Your task to perform on an android device: set the timer Image 0: 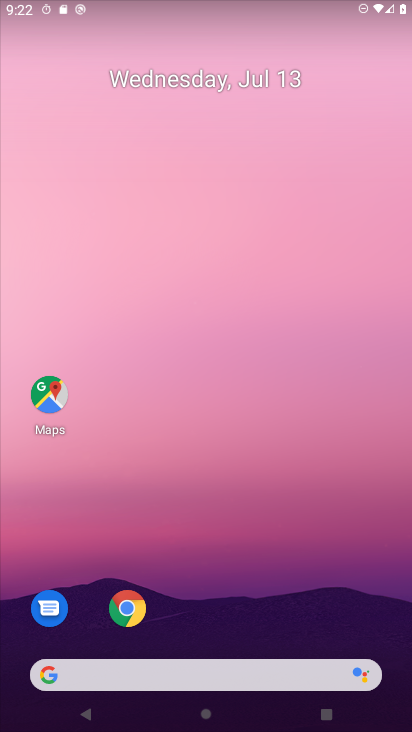
Step 0: drag from (216, 645) to (198, 222)
Your task to perform on an android device: set the timer Image 1: 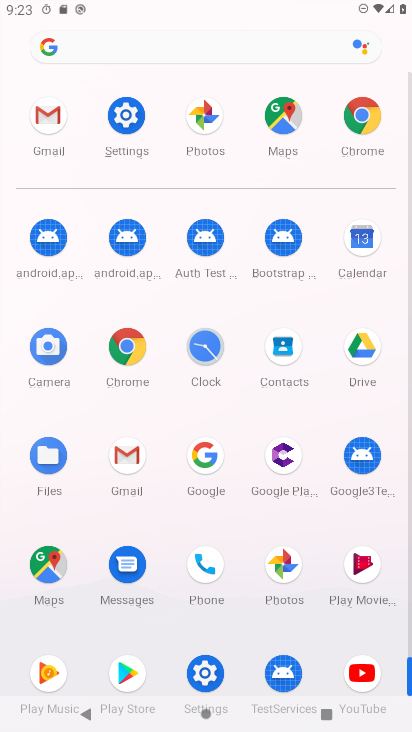
Step 1: click (115, 119)
Your task to perform on an android device: set the timer Image 2: 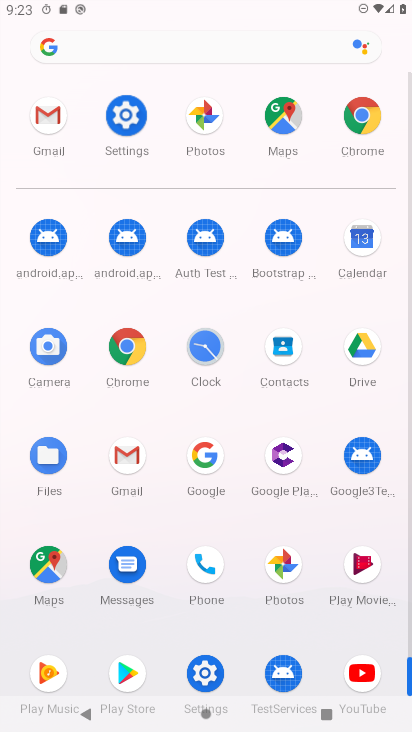
Step 2: click (119, 119)
Your task to perform on an android device: set the timer Image 3: 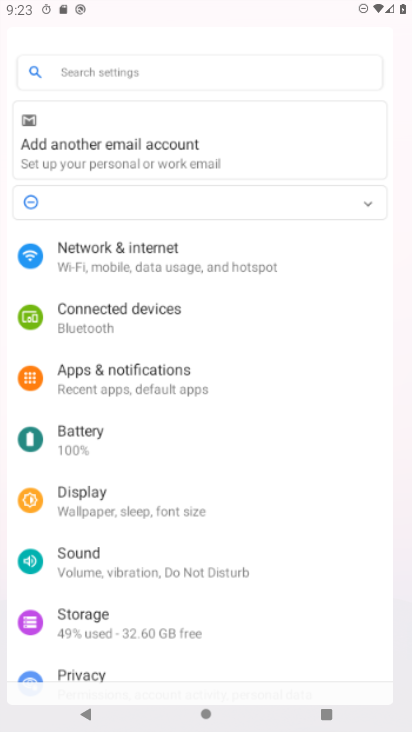
Step 3: click (119, 119)
Your task to perform on an android device: set the timer Image 4: 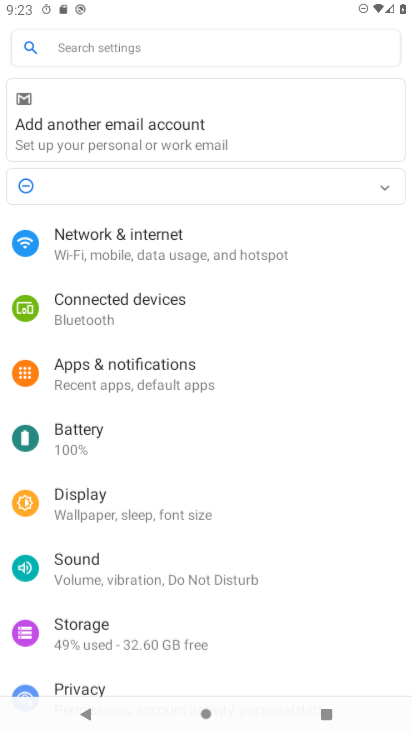
Step 4: click (121, 119)
Your task to perform on an android device: set the timer Image 5: 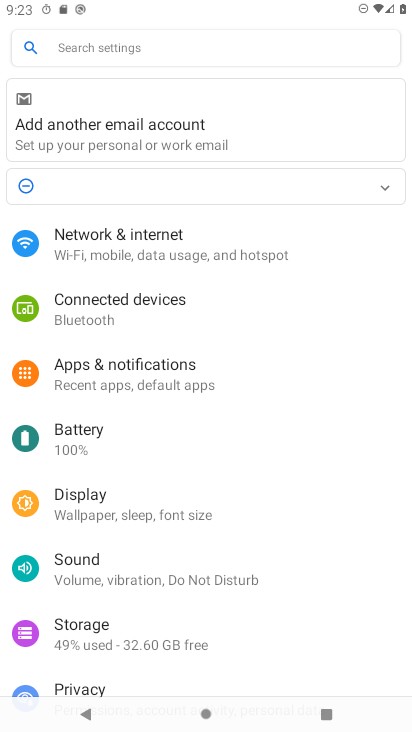
Step 5: press back button
Your task to perform on an android device: set the timer Image 6: 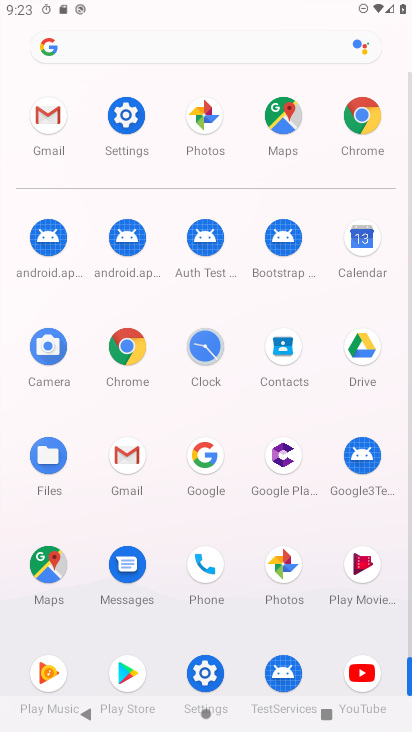
Step 6: click (125, 121)
Your task to perform on an android device: set the timer Image 7: 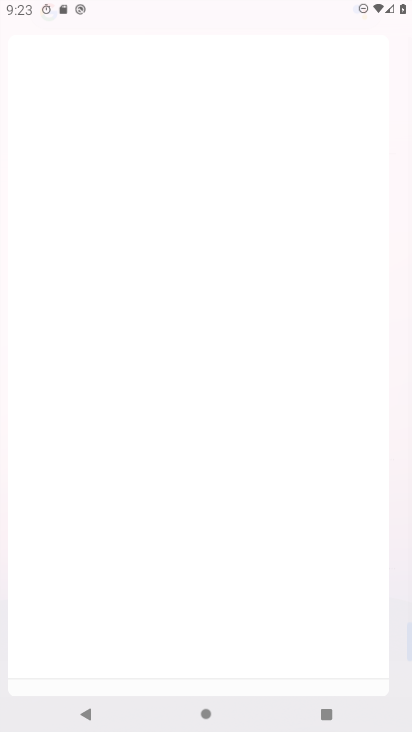
Step 7: click (125, 121)
Your task to perform on an android device: set the timer Image 8: 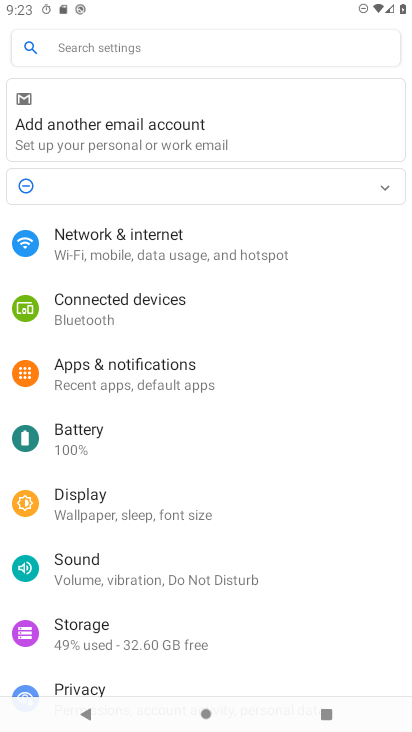
Step 8: press back button
Your task to perform on an android device: set the timer Image 9: 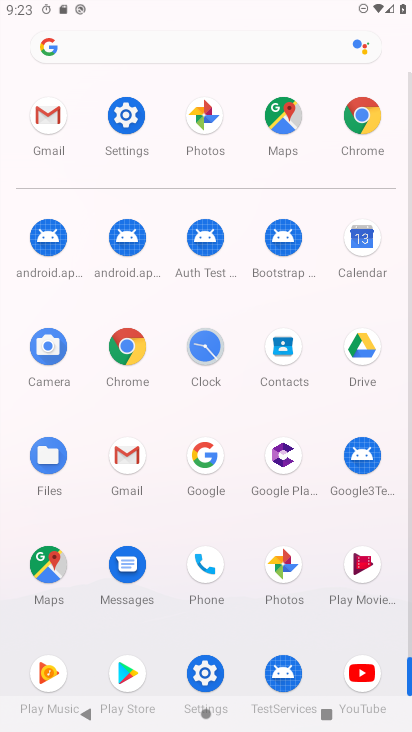
Step 9: click (206, 335)
Your task to perform on an android device: set the timer Image 10: 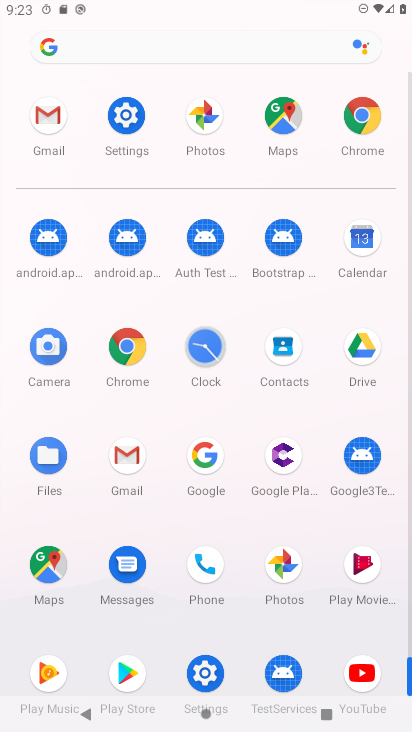
Step 10: click (206, 335)
Your task to perform on an android device: set the timer Image 11: 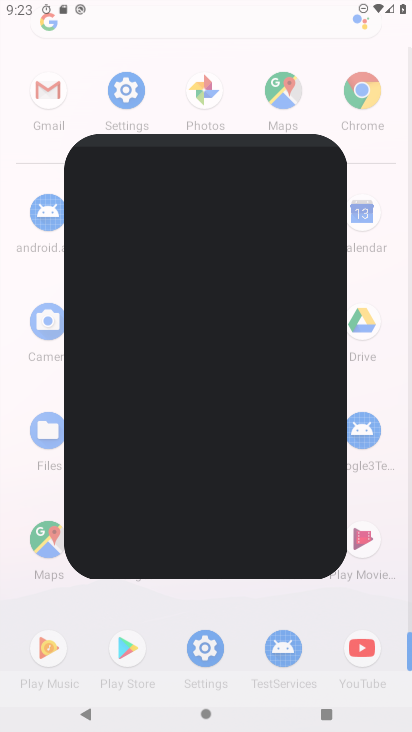
Step 11: click (206, 335)
Your task to perform on an android device: set the timer Image 12: 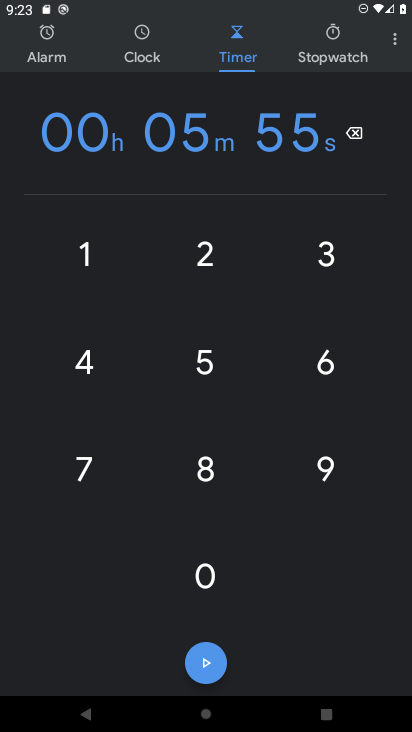
Step 12: click (205, 466)
Your task to perform on an android device: set the timer Image 13: 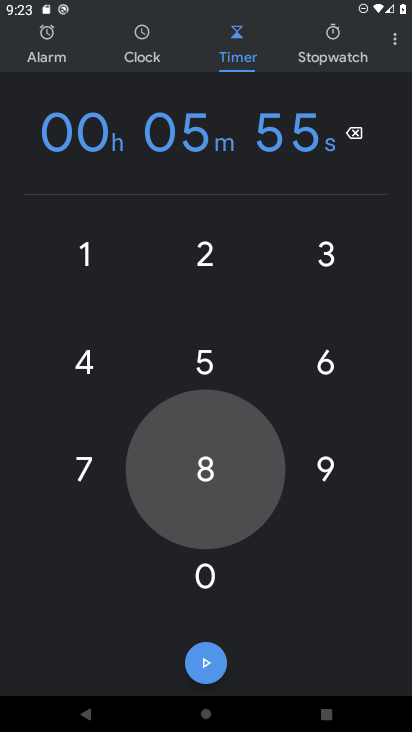
Step 13: click (206, 469)
Your task to perform on an android device: set the timer Image 14: 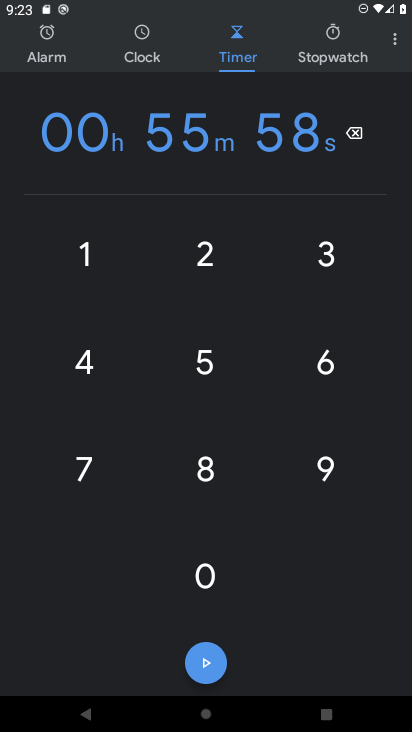
Step 14: click (205, 469)
Your task to perform on an android device: set the timer Image 15: 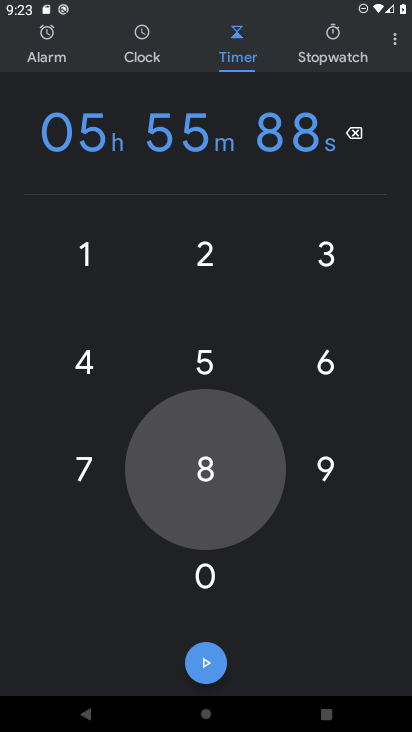
Step 15: click (205, 473)
Your task to perform on an android device: set the timer Image 16: 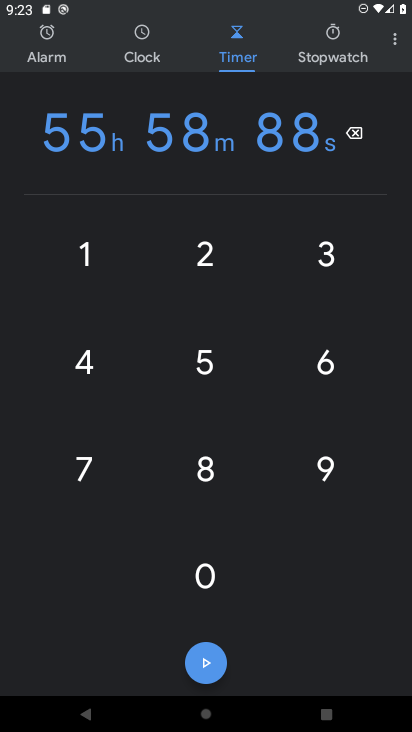
Step 16: click (198, 364)
Your task to perform on an android device: set the timer Image 17: 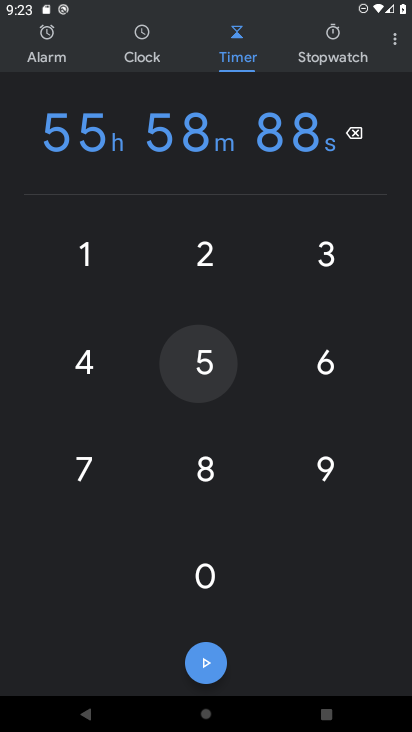
Step 17: click (198, 363)
Your task to perform on an android device: set the timer Image 18: 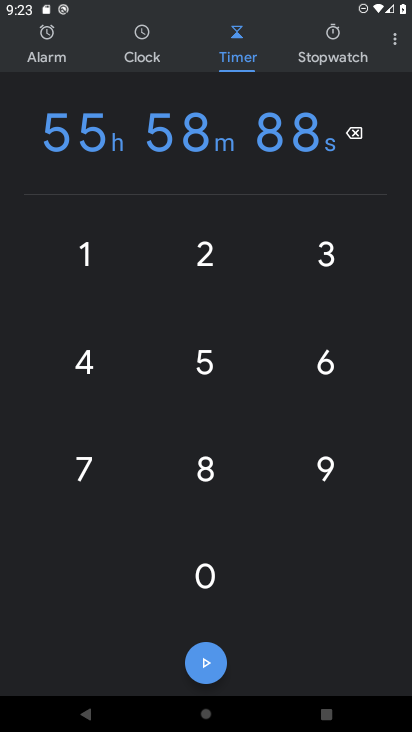
Step 18: click (199, 359)
Your task to perform on an android device: set the timer Image 19: 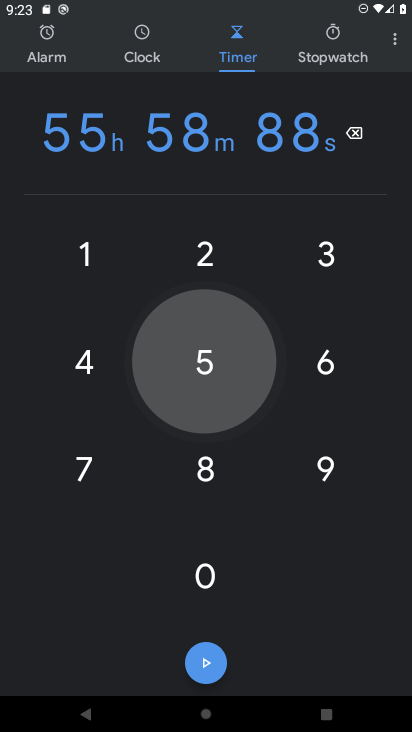
Step 19: click (203, 353)
Your task to perform on an android device: set the timer Image 20: 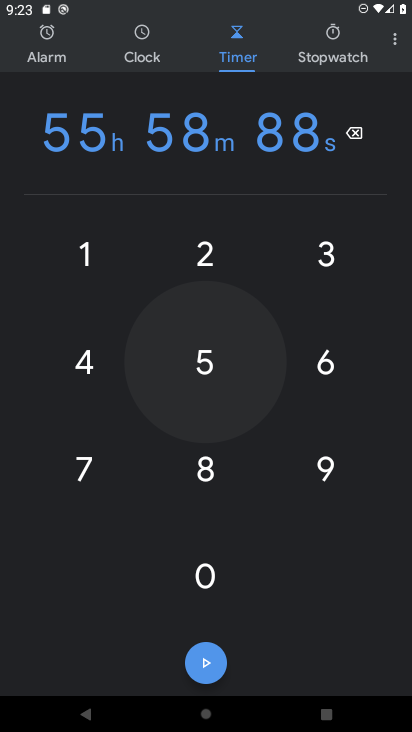
Step 20: click (203, 353)
Your task to perform on an android device: set the timer Image 21: 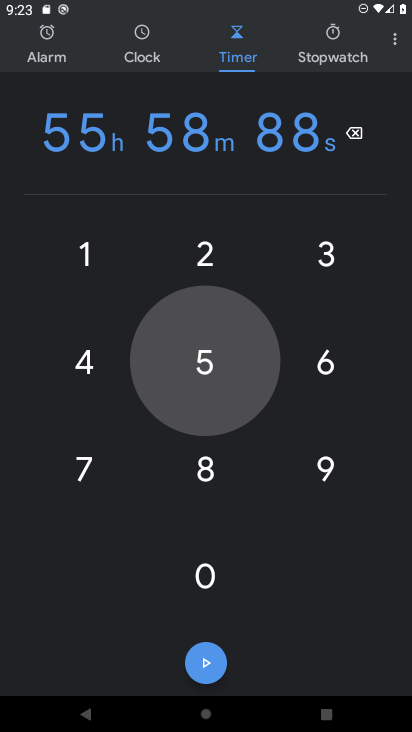
Step 21: click (206, 350)
Your task to perform on an android device: set the timer Image 22: 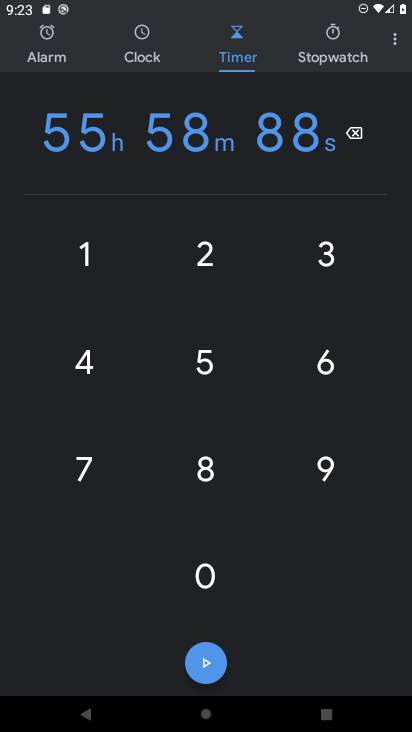
Step 22: click (209, 353)
Your task to perform on an android device: set the timer Image 23: 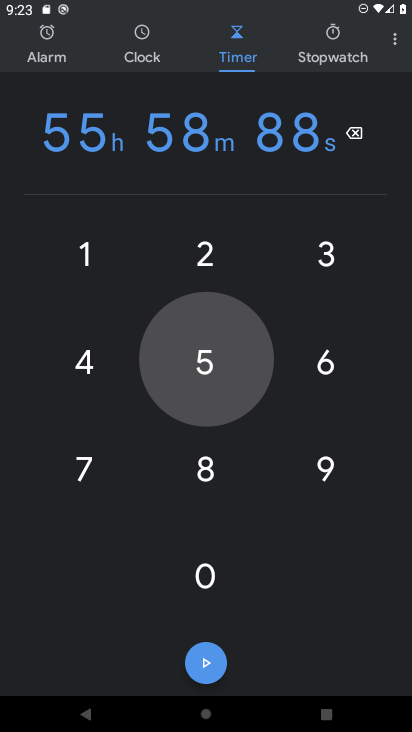
Step 23: click (209, 354)
Your task to perform on an android device: set the timer Image 24: 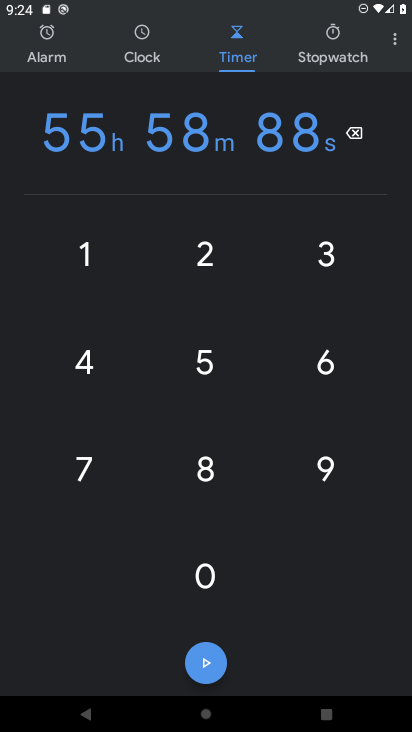
Step 24: click (200, 369)
Your task to perform on an android device: set the timer Image 25: 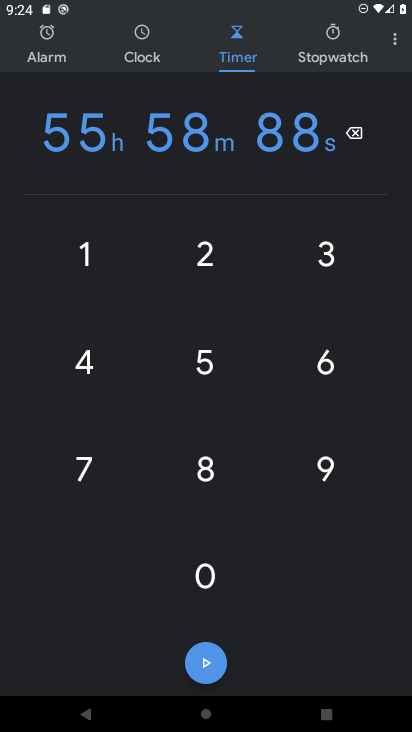
Step 25: click (200, 370)
Your task to perform on an android device: set the timer Image 26: 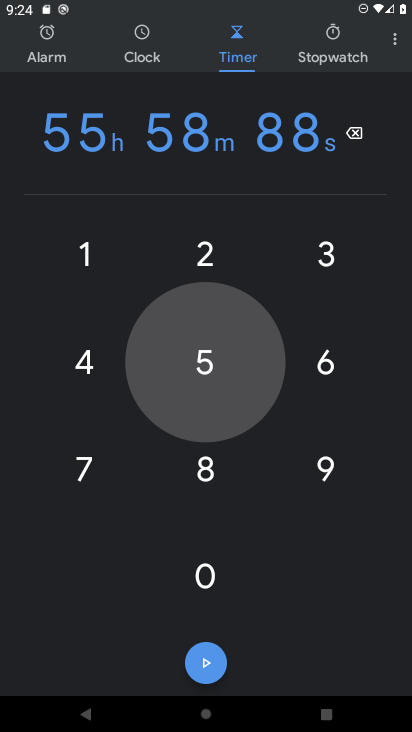
Step 26: click (199, 371)
Your task to perform on an android device: set the timer Image 27: 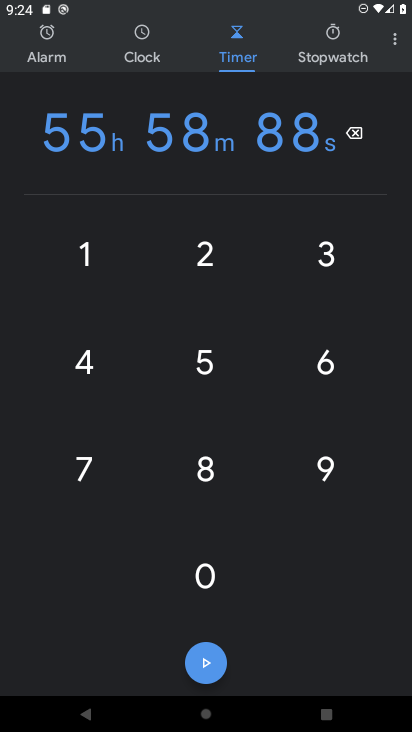
Step 27: click (196, 657)
Your task to perform on an android device: set the timer Image 28: 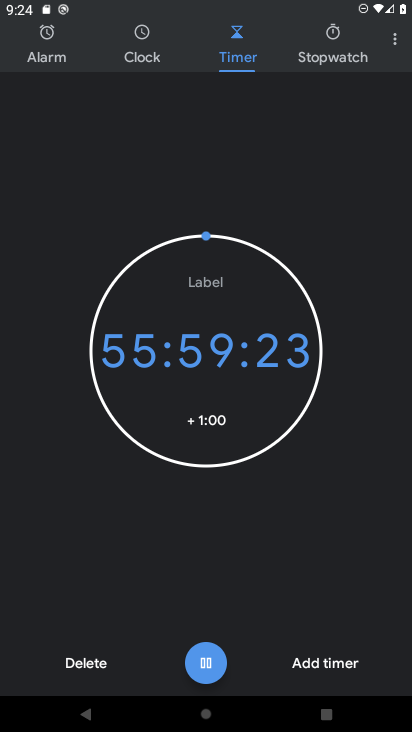
Step 28: click (206, 656)
Your task to perform on an android device: set the timer Image 29: 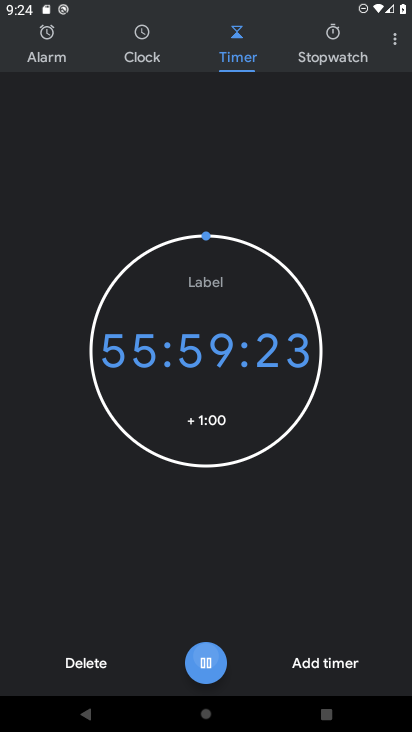
Step 29: click (206, 660)
Your task to perform on an android device: set the timer Image 30: 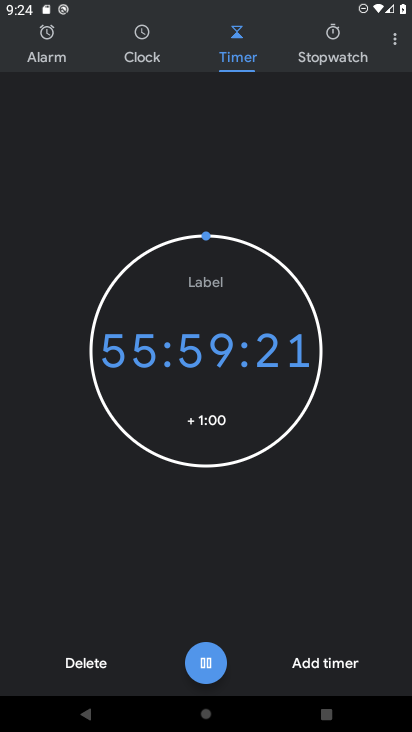
Step 30: click (202, 665)
Your task to perform on an android device: set the timer Image 31: 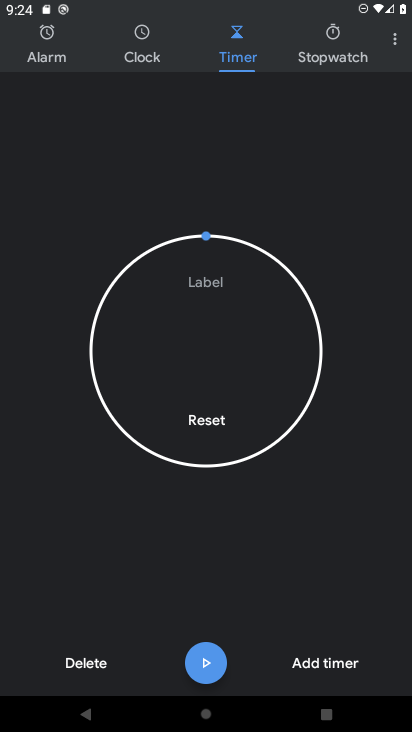
Step 31: task complete